Your task to perform on an android device: Go to internet settings Image 0: 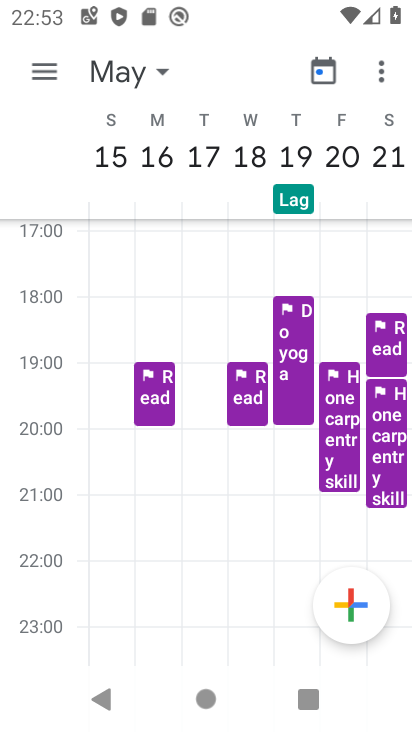
Step 0: press home button
Your task to perform on an android device: Go to internet settings Image 1: 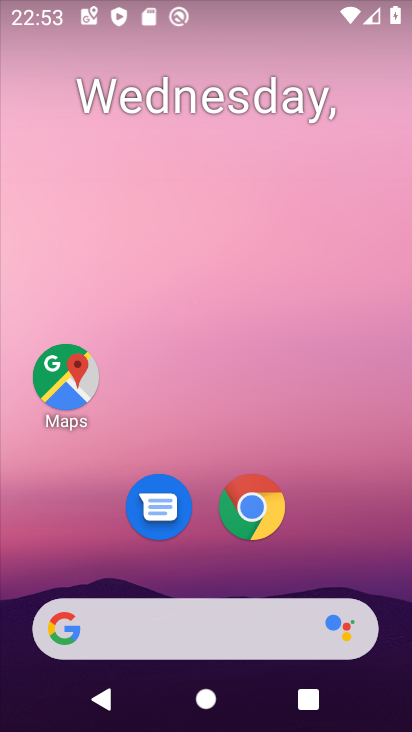
Step 1: drag from (339, 537) to (333, 254)
Your task to perform on an android device: Go to internet settings Image 2: 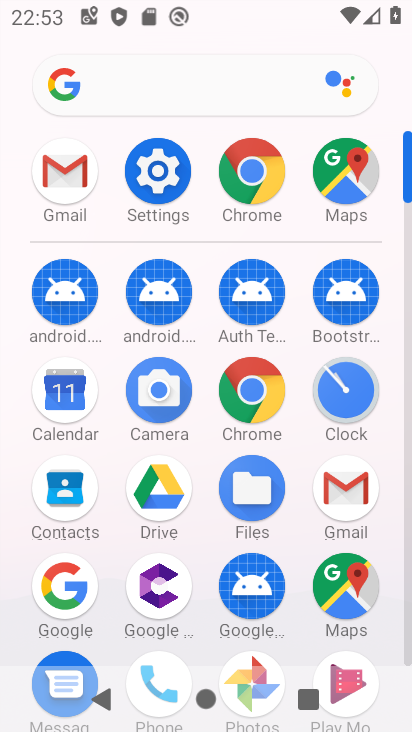
Step 2: click (142, 182)
Your task to perform on an android device: Go to internet settings Image 3: 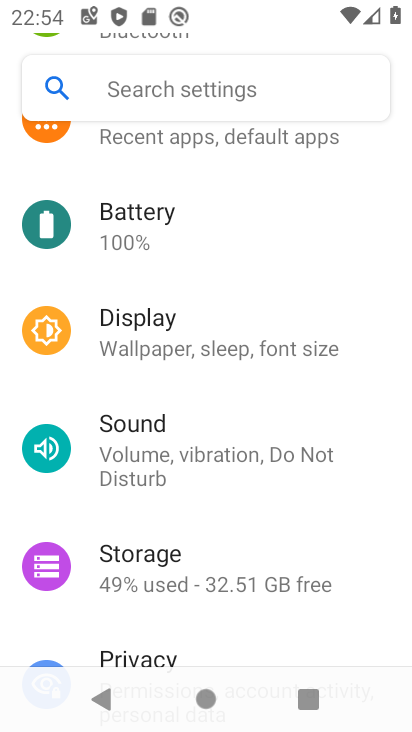
Step 3: drag from (230, 188) to (227, 608)
Your task to perform on an android device: Go to internet settings Image 4: 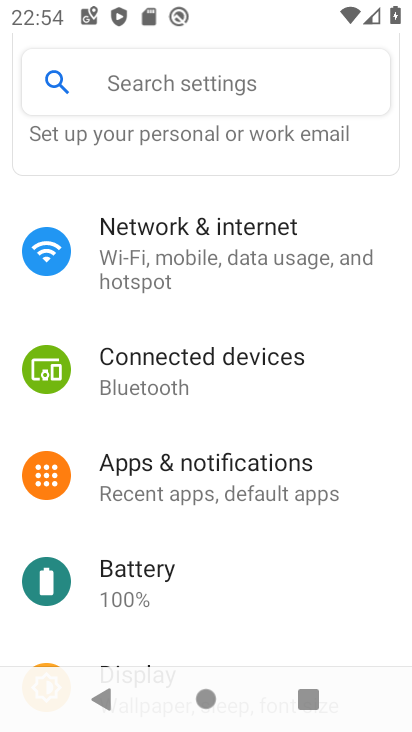
Step 4: click (218, 247)
Your task to perform on an android device: Go to internet settings Image 5: 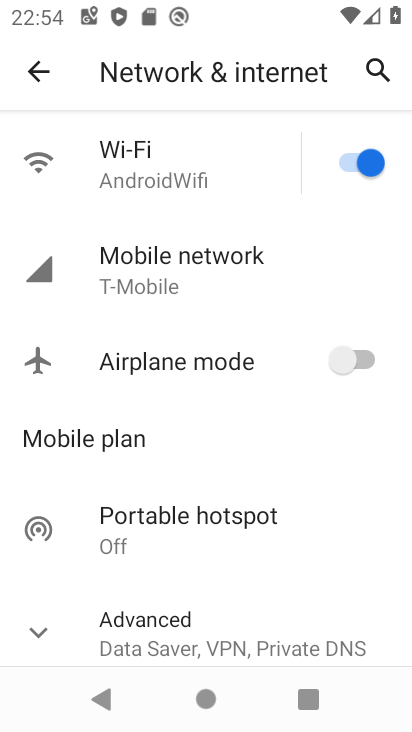
Step 5: task complete